Your task to perform on an android device: turn on location history Image 0: 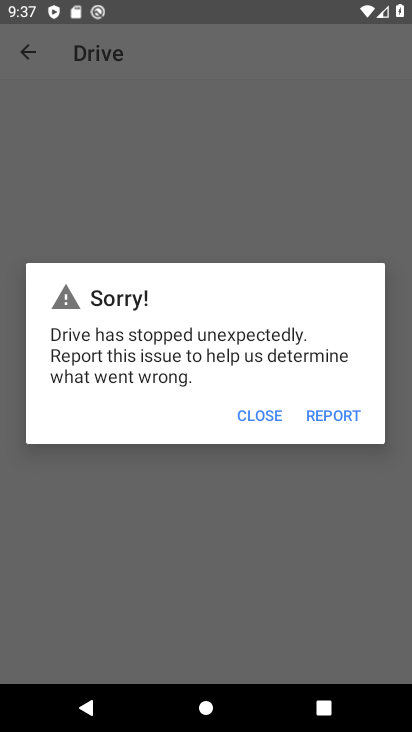
Step 0: press home button
Your task to perform on an android device: turn on location history Image 1: 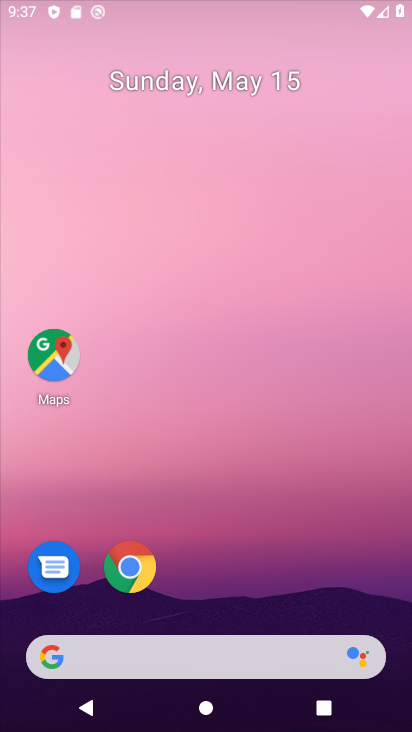
Step 1: drag from (240, 565) to (248, 57)
Your task to perform on an android device: turn on location history Image 2: 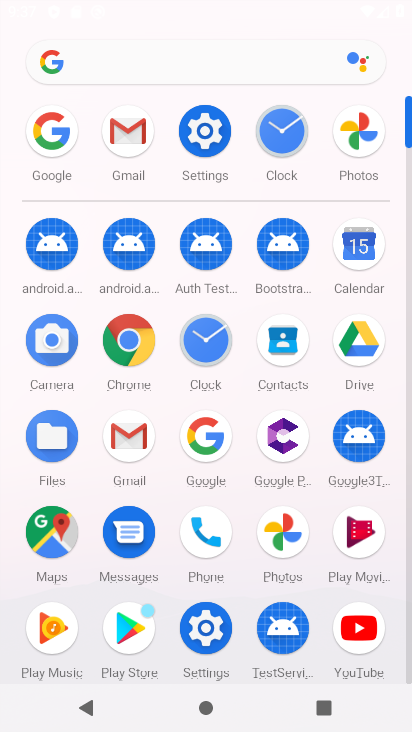
Step 2: click (198, 135)
Your task to perform on an android device: turn on location history Image 3: 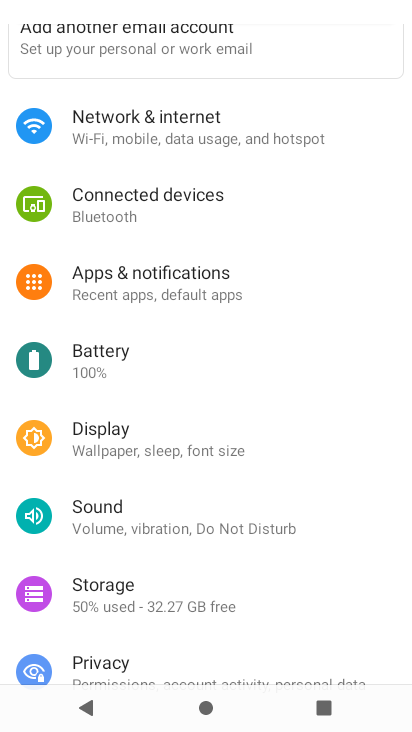
Step 3: drag from (141, 668) to (213, 278)
Your task to perform on an android device: turn on location history Image 4: 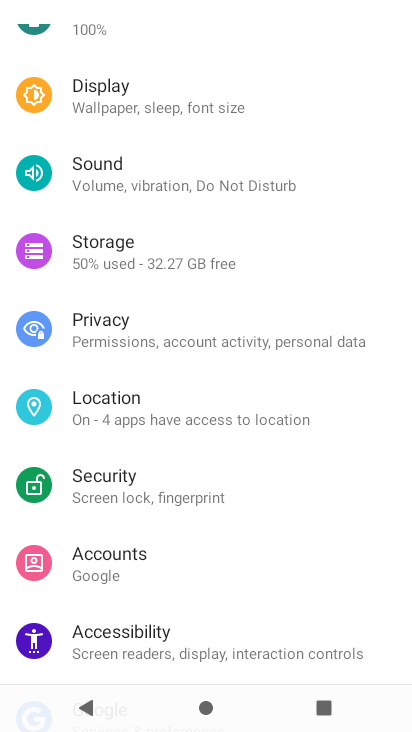
Step 4: click (118, 406)
Your task to perform on an android device: turn on location history Image 5: 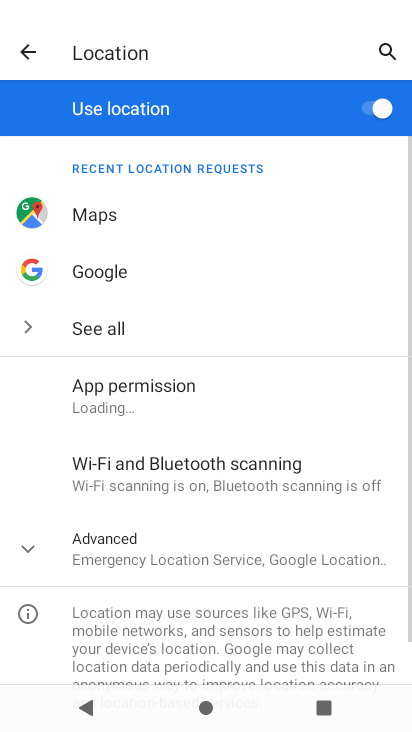
Step 5: click (139, 542)
Your task to perform on an android device: turn on location history Image 6: 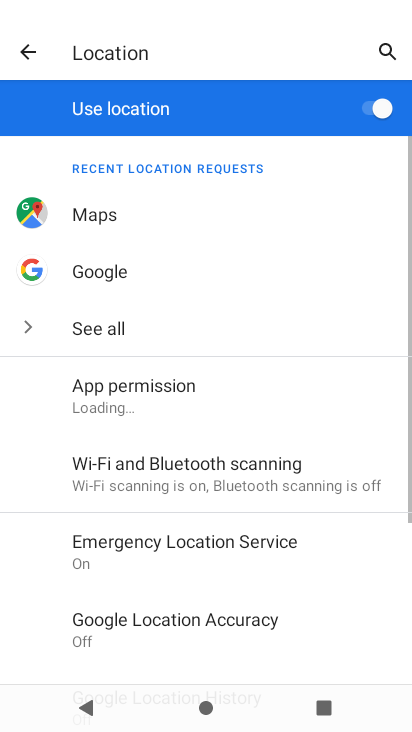
Step 6: drag from (283, 540) to (244, 227)
Your task to perform on an android device: turn on location history Image 7: 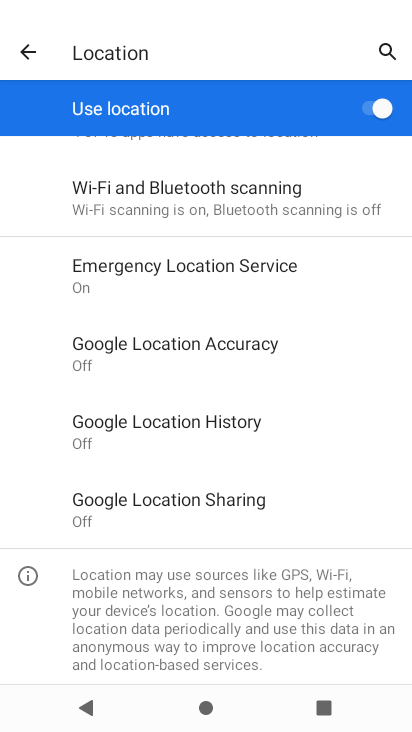
Step 7: click (181, 427)
Your task to perform on an android device: turn on location history Image 8: 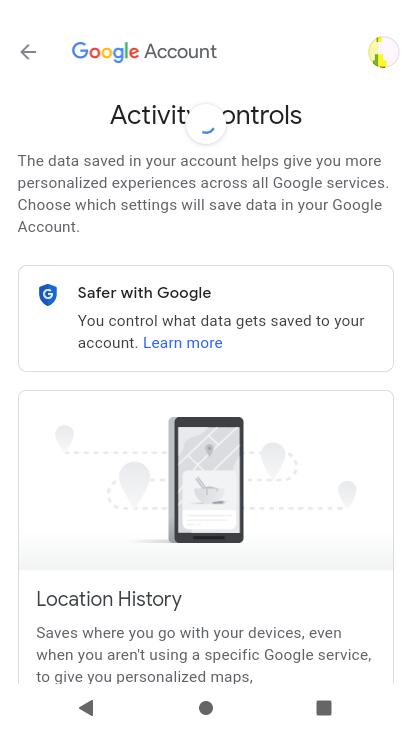
Step 8: drag from (294, 540) to (281, 97)
Your task to perform on an android device: turn on location history Image 9: 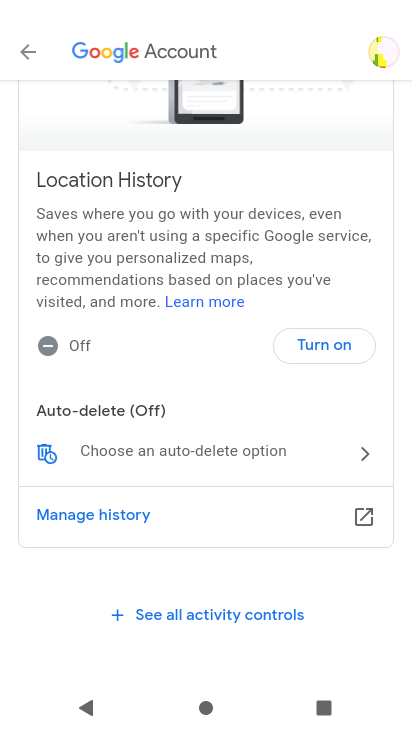
Step 9: click (353, 336)
Your task to perform on an android device: turn on location history Image 10: 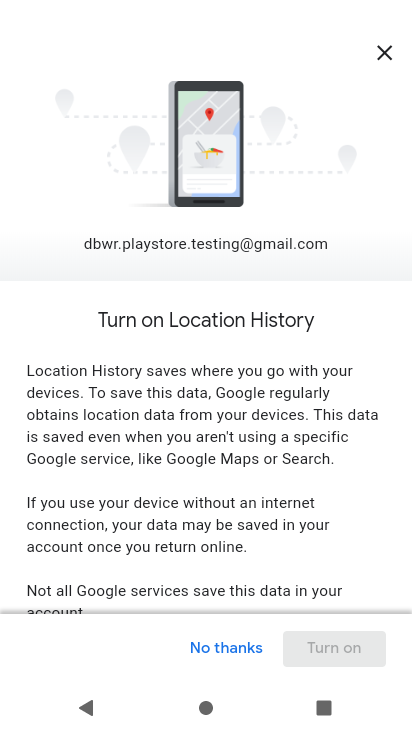
Step 10: drag from (265, 538) to (314, 7)
Your task to perform on an android device: turn on location history Image 11: 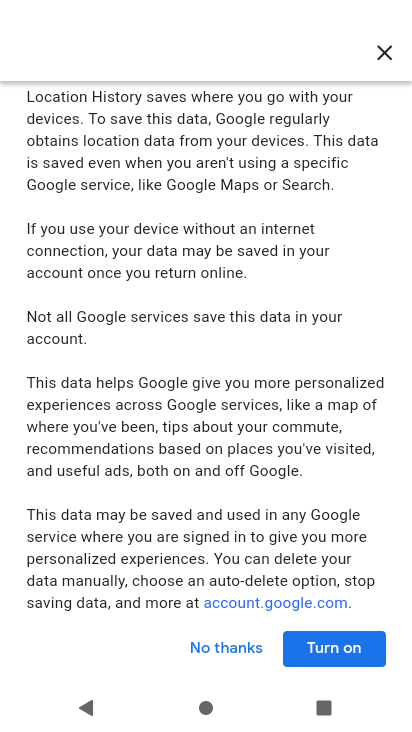
Step 11: click (329, 640)
Your task to perform on an android device: turn on location history Image 12: 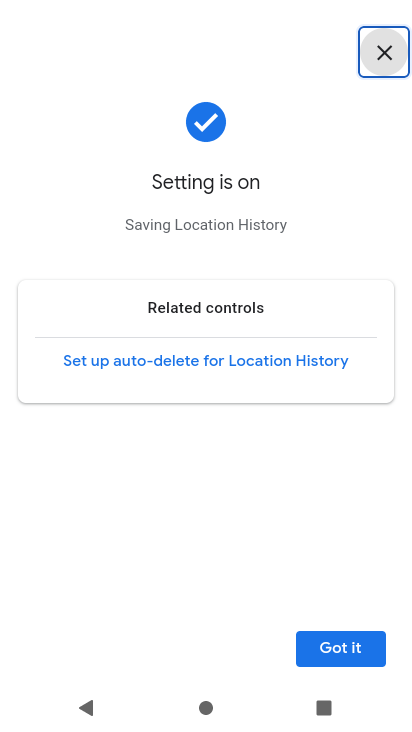
Step 12: click (351, 653)
Your task to perform on an android device: turn on location history Image 13: 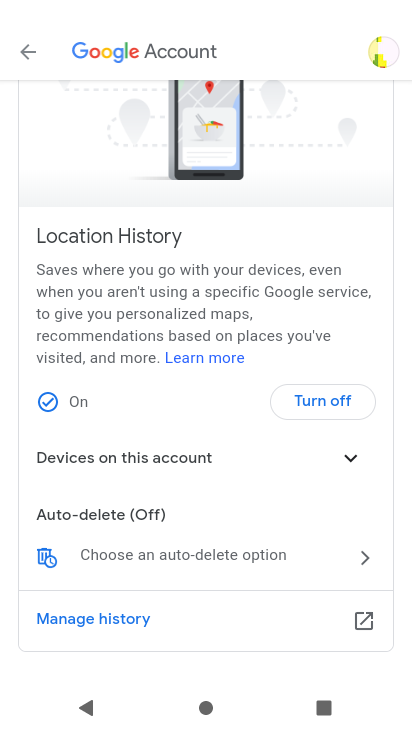
Step 13: task complete